Your task to perform on an android device: Search for Italian restaurants on Maps Image 0: 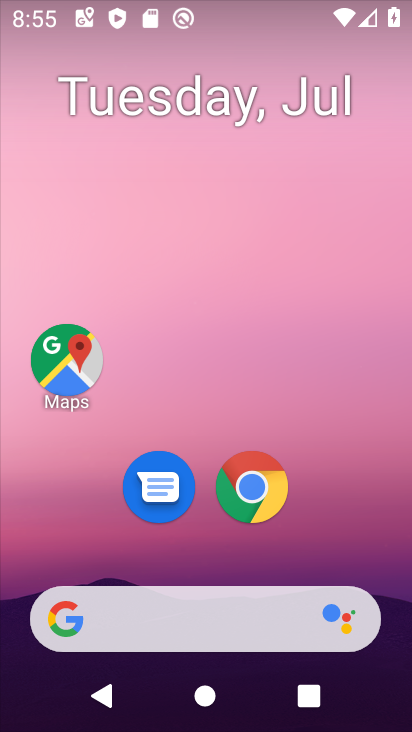
Step 0: click (72, 353)
Your task to perform on an android device: Search for Italian restaurants on Maps Image 1: 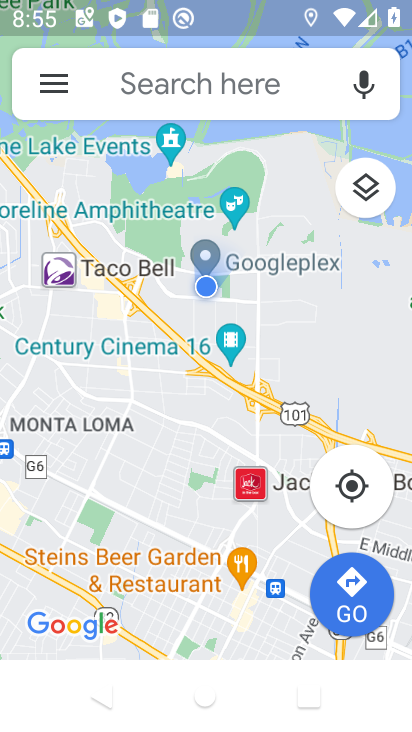
Step 1: click (199, 91)
Your task to perform on an android device: Search for Italian restaurants on Maps Image 2: 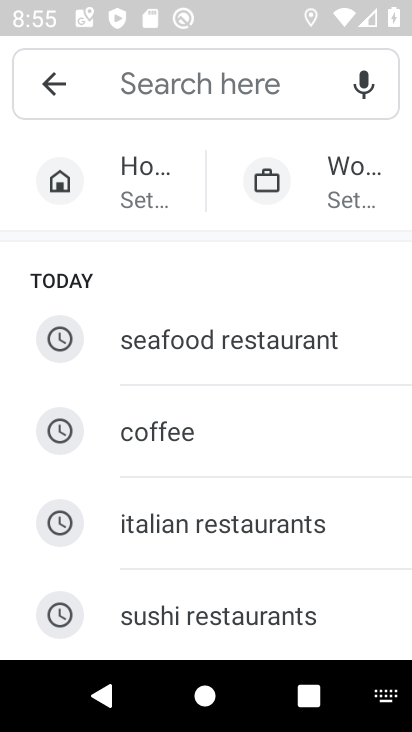
Step 2: click (195, 523)
Your task to perform on an android device: Search for Italian restaurants on Maps Image 3: 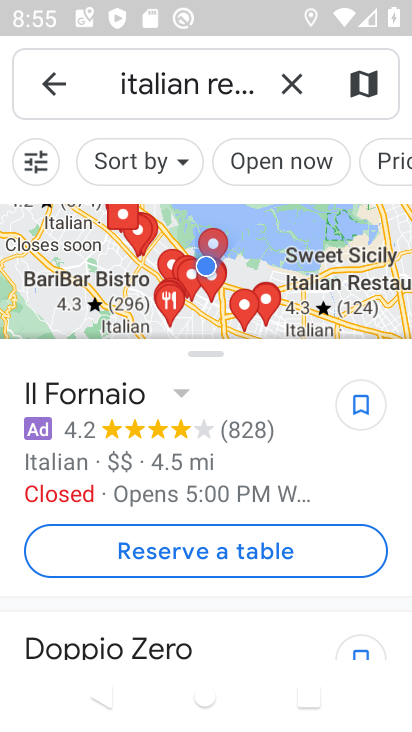
Step 3: task complete